Your task to perform on an android device: turn off sleep mode Image 0: 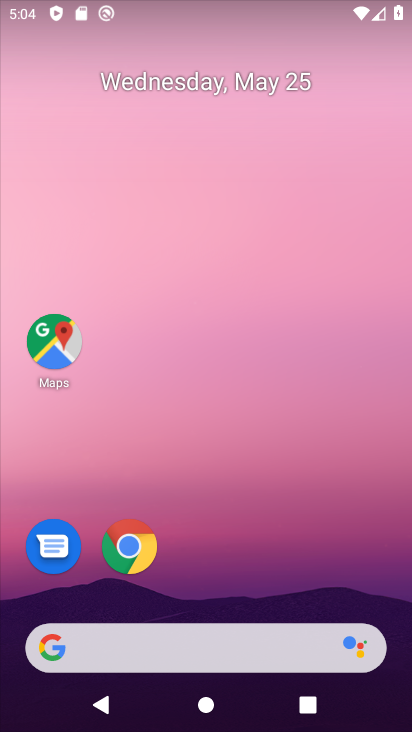
Step 0: drag from (169, 628) to (141, 195)
Your task to perform on an android device: turn off sleep mode Image 1: 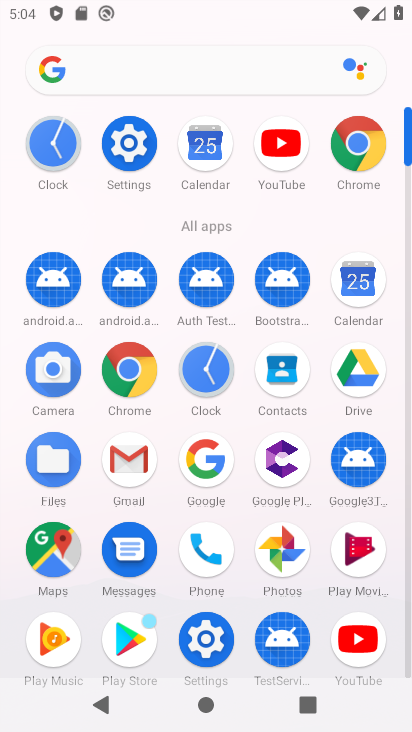
Step 1: click (126, 135)
Your task to perform on an android device: turn off sleep mode Image 2: 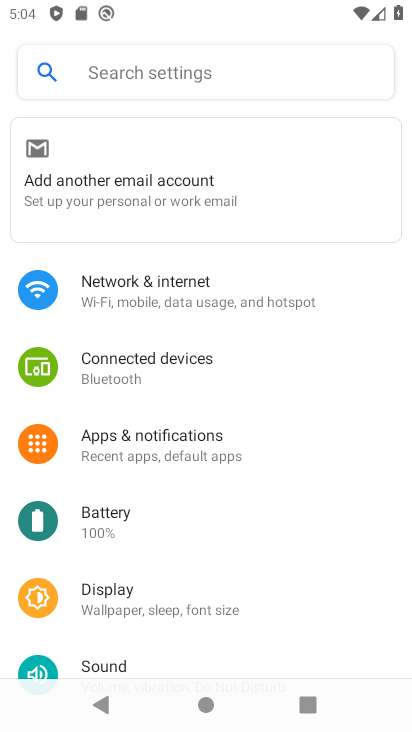
Step 2: drag from (282, 536) to (246, 216)
Your task to perform on an android device: turn off sleep mode Image 3: 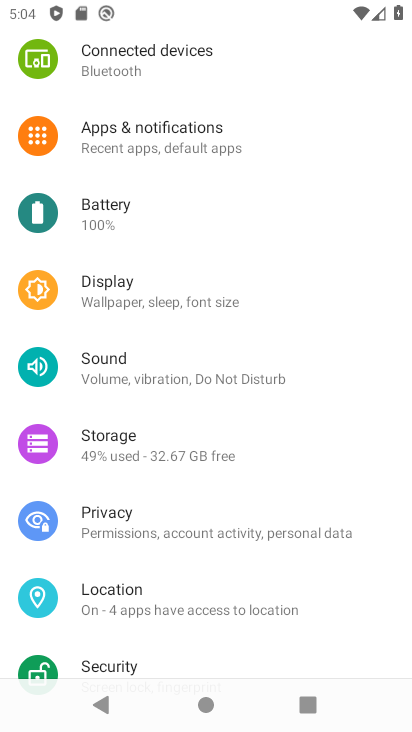
Step 3: click (224, 293)
Your task to perform on an android device: turn off sleep mode Image 4: 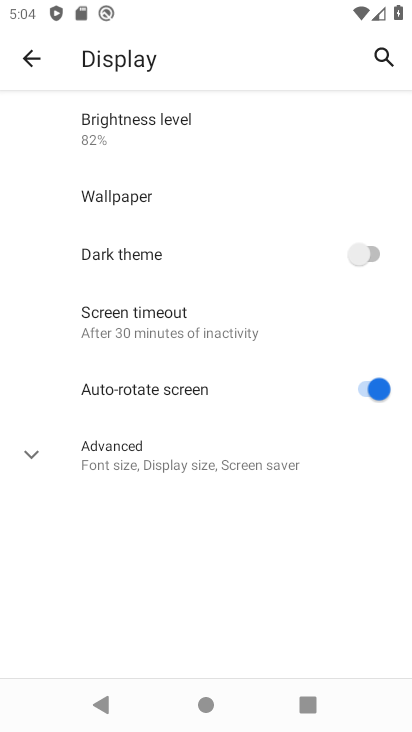
Step 4: task complete